Your task to perform on an android device: change the clock display to analog Image 0: 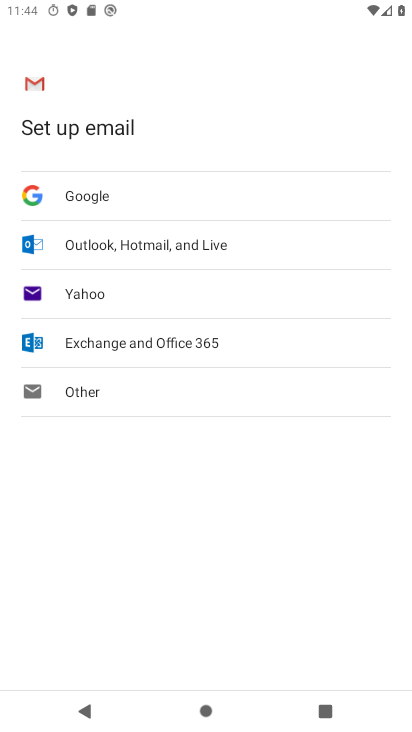
Step 0: press home button
Your task to perform on an android device: change the clock display to analog Image 1: 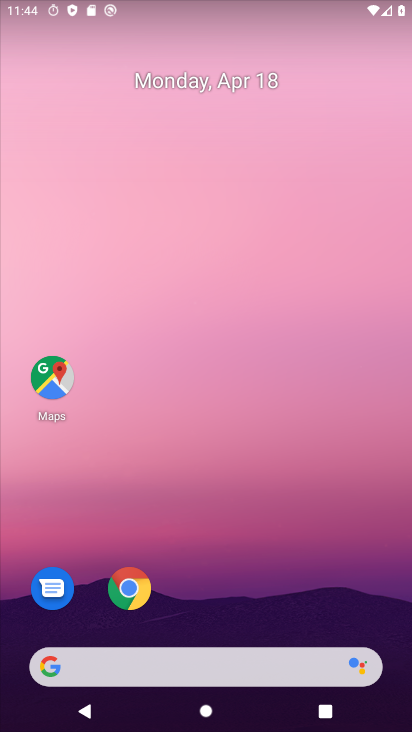
Step 1: drag from (226, 473) to (243, 103)
Your task to perform on an android device: change the clock display to analog Image 2: 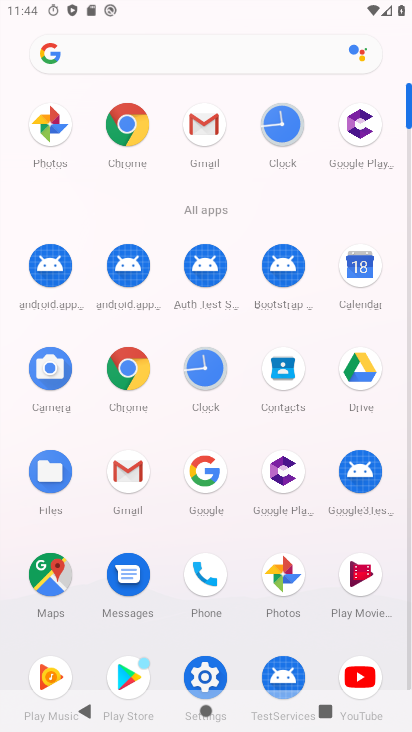
Step 2: click (278, 146)
Your task to perform on an android device: change the clock display to analog Image 3: 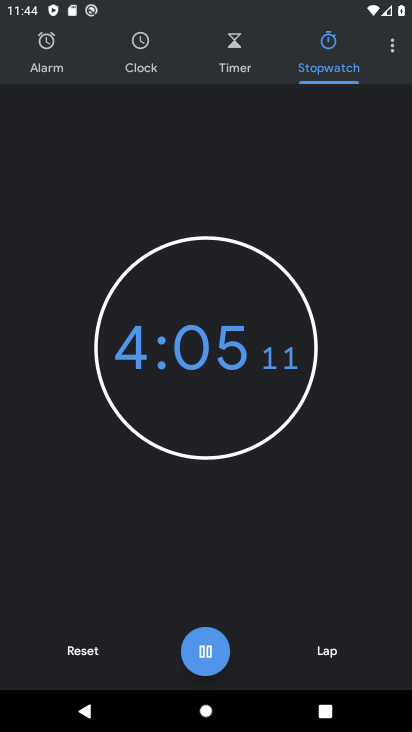
Step 3: click (392, 40)
Your task to perform on an android device: change the clock display to analog Image 4: 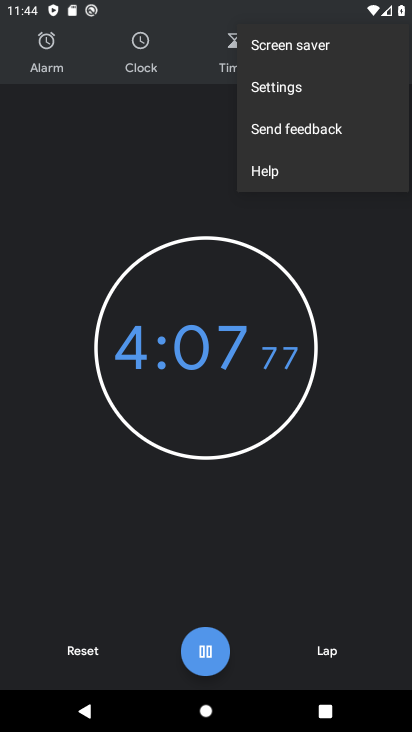
Step 4: click (266, 94)
Your task to perform on an android device: change the clock display to analog Image 5: 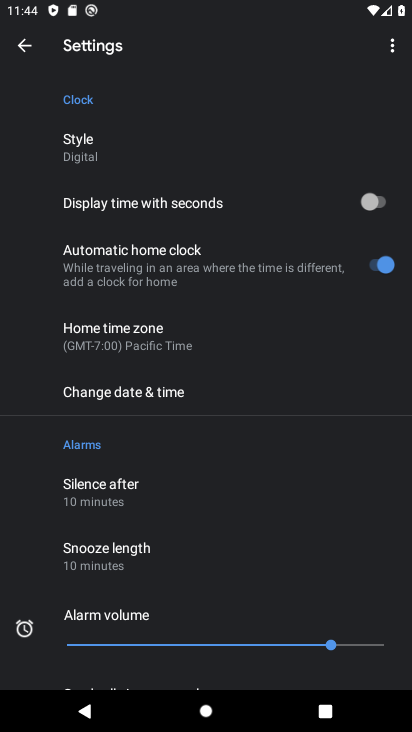
Step 5: click (98, 150)
Your task to perform on an android device: change the clock display to analog Image 6: 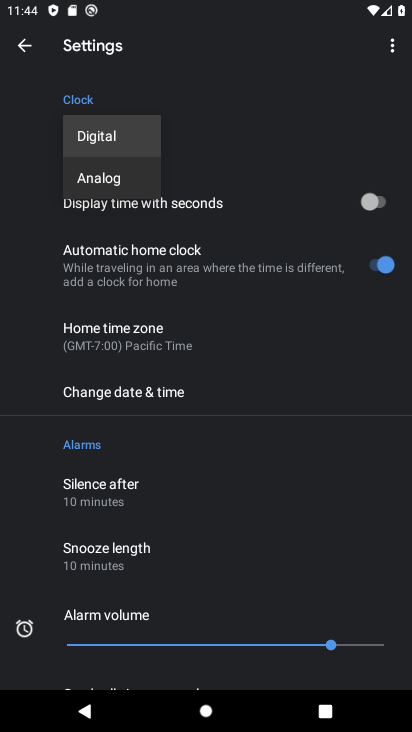
Step 6: click (105, 177)
Your task to perform on an android device: change the clock display to analog Image 7: 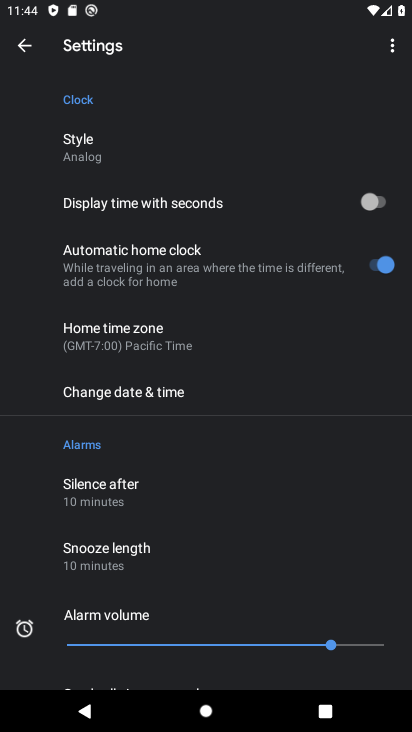
Step 7: task complete